Your task to perform on an android device: Search for seafood restaurants on Google Maps Image 0: 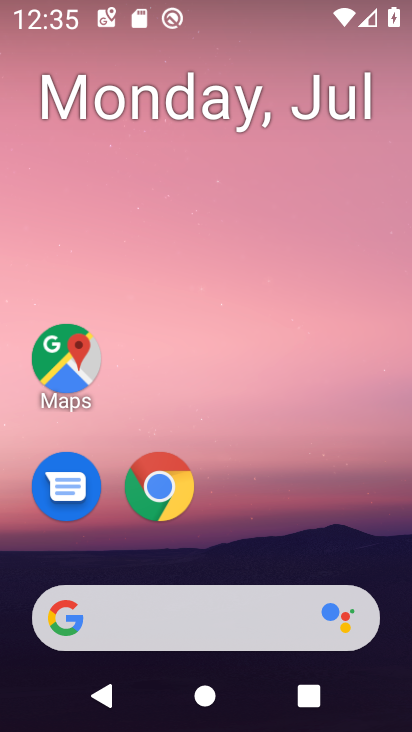
Step 0: press home button
Your task to perform on an android device: Search for seafood restaurants on Google Maps Image 1: 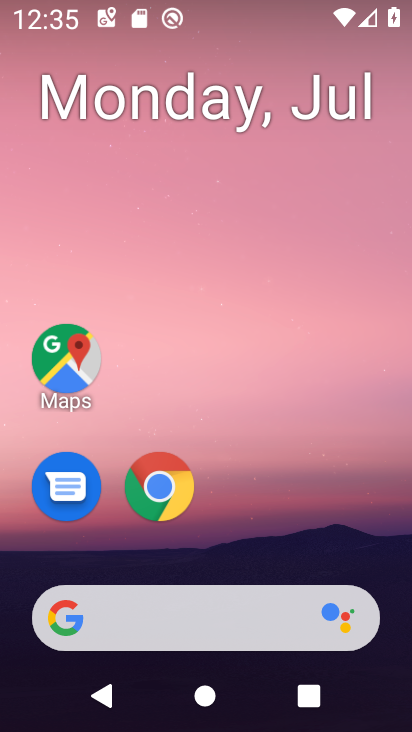
Step 1: drag from (375, 533) to (385, 106)
Your task to perform on an android device: Search for seafood restaurants on Google Maps Image 2: 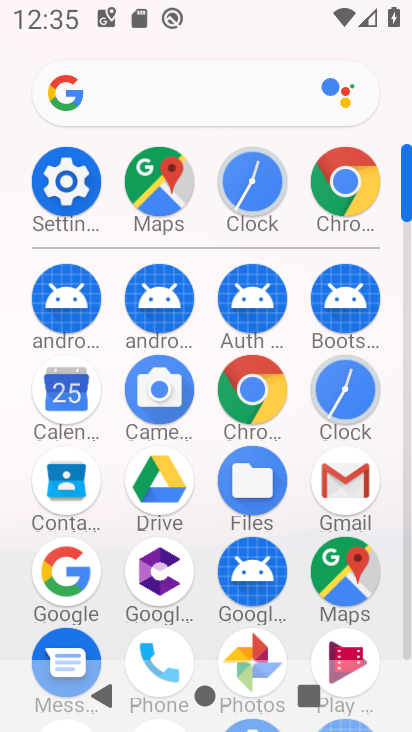
Step 2: click (349, 572)
Your task to perform on an android device: Search for seafood restaurants on Google Maps Image 3: 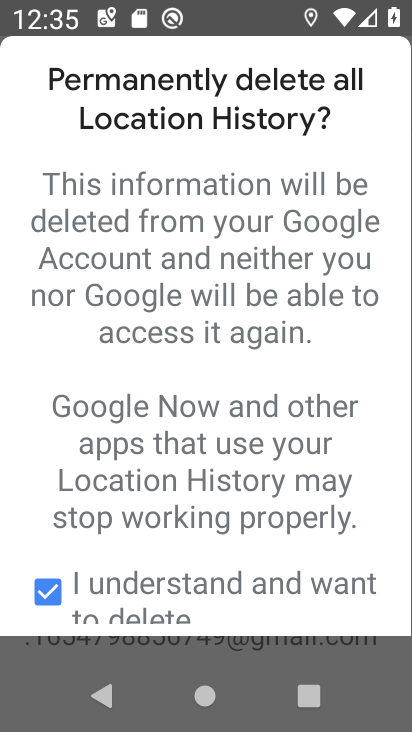
Step 3: press back button
Your task to perform on an android device: Search for seafood restaurants on Google Maps Image 4: 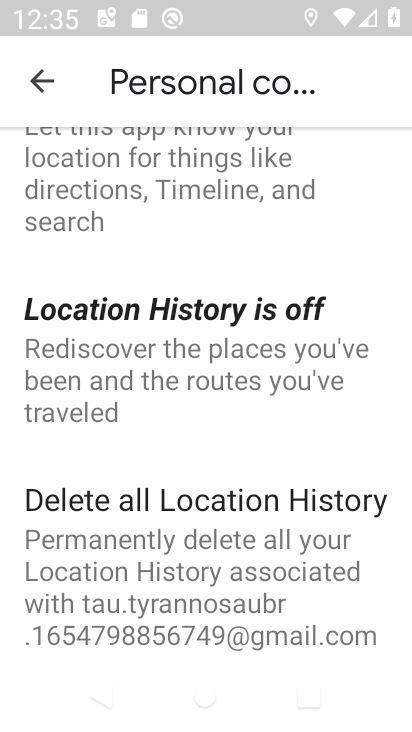
Step 4: press back button
Your task to perform on an android device: Search for seafood restaurants on Google Maps Image 5: 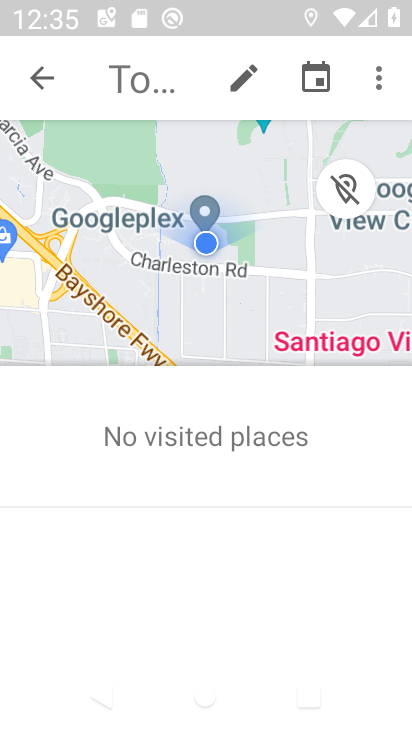
Step 5: press back button
Your task to perform on an android device: Search for seafood restaurants on Google Maps Image 6: 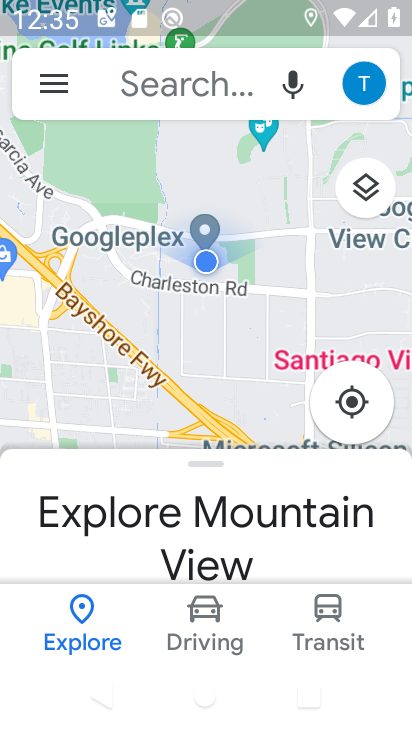
Step 6: click (202, 85)
Your task to perform on an android device: Search for seafood restaurants on Google Maps Image 7: 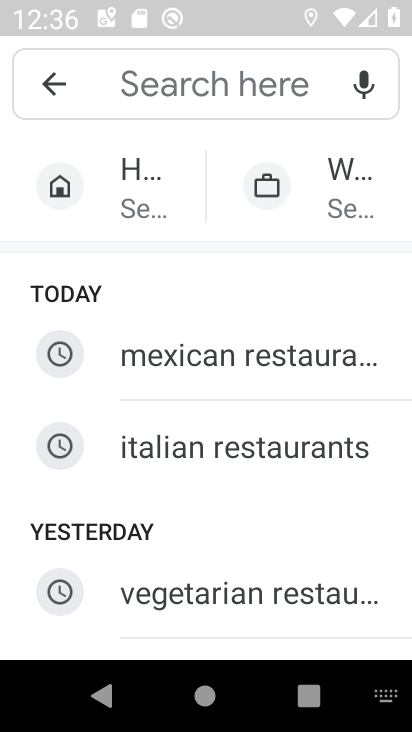
Step 7: type "seafood restaurants"
Your task to perform on an android device: Search for seafood restaurants on Google Maps Image 8: 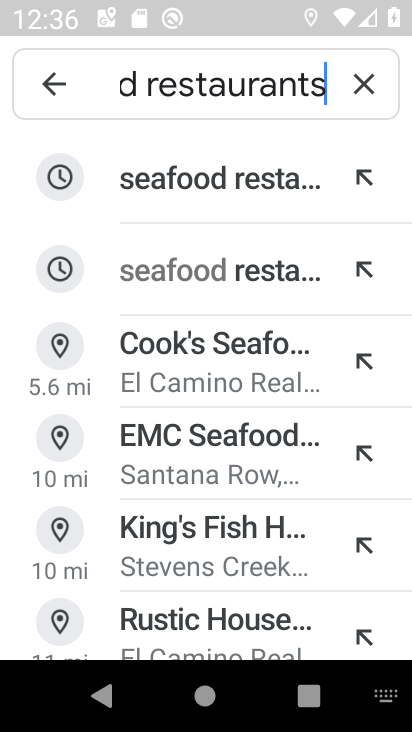
Step 8: click (307, 222)
Your task to perform on an android device: Search for seafood restaurants on Google Maps Image 9: 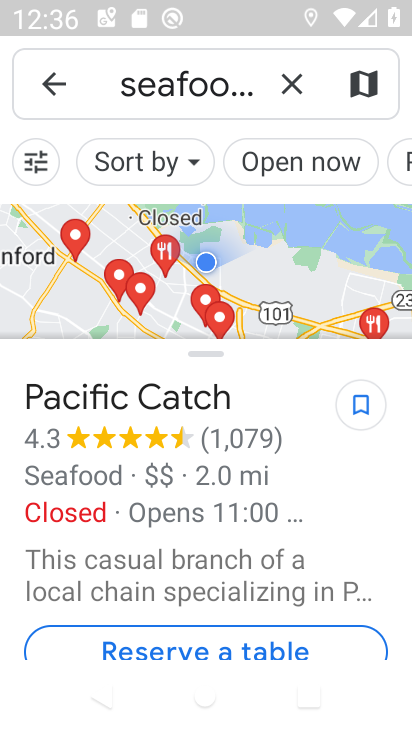
Step 9: task complete